Your task to perform on an android device: Turn on the flashlight Image 0: 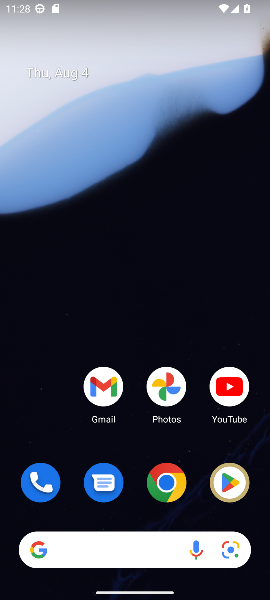
Step 0: drag from (140, 519) to (146, 138)
Your task to perform on an android device: Turn on the flashlight Image 1: 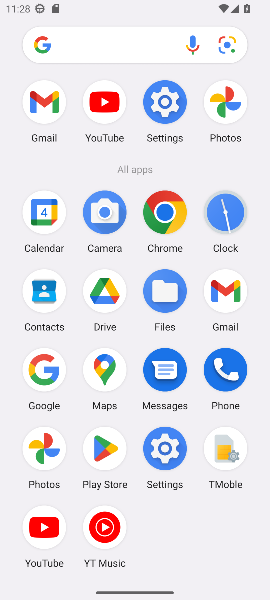
Step 1: click (154, 115)
Your task to perform on an android device: Turn on the flashlight Image 2: 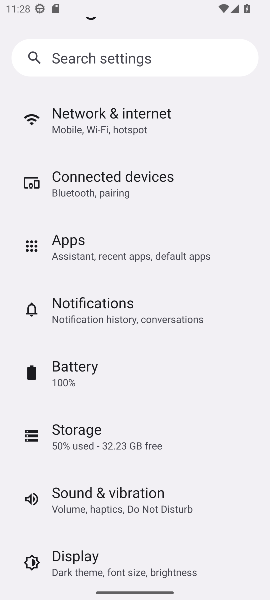
Step 2: task complete